Your task to perform on an android device: delete the emails in spam in the gmail app Image 0: 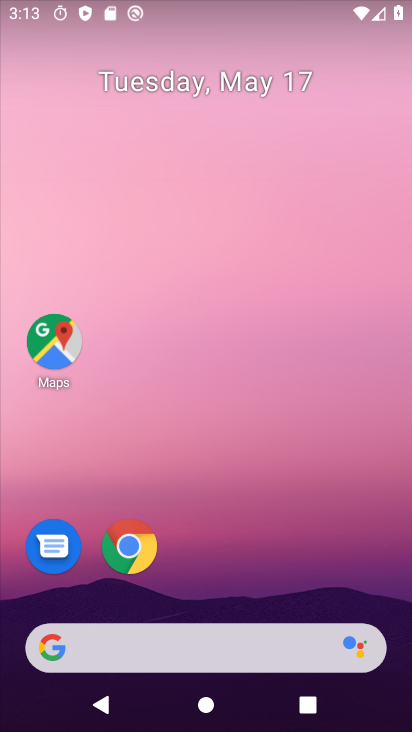
Step 0: drag from (285, 647) to (300, 84)
Your task to perform on an android device: delete the emails in spam in the gmail app Image 1: 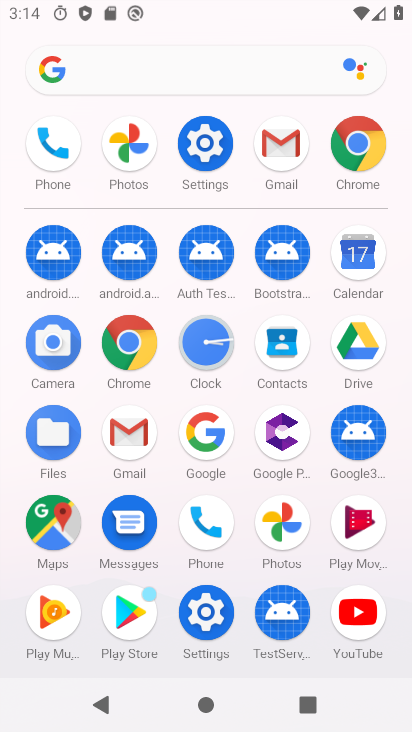
Step 1: drag from (280, 572) to (328, 303)
Your task to perform on an android device: delete the emails in spam in the gmail app Image 2: 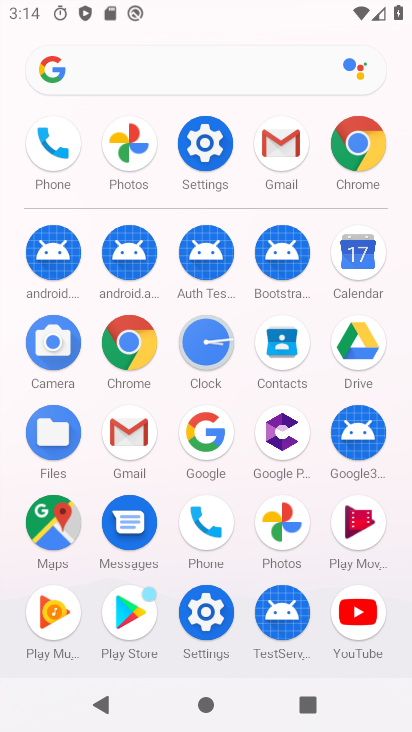
Step 2: click (135, 442)
Your task to perform on an android device: delete the emails in spam in the gmail app Image 3: 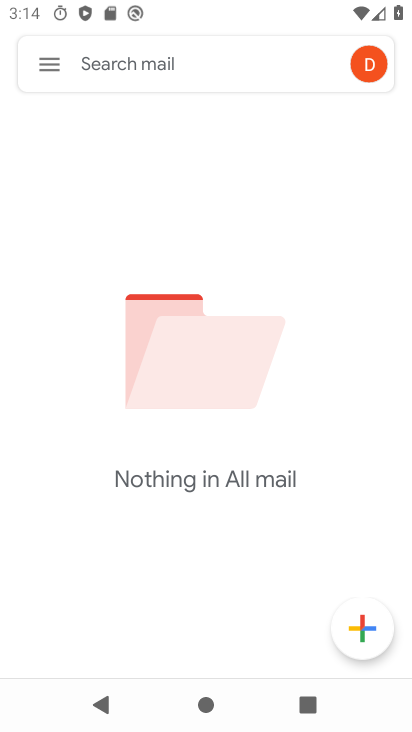
Step 3: click (64, 59)
Your task to perform on an android device: delete the emails in spam in the gmail app Image 4: 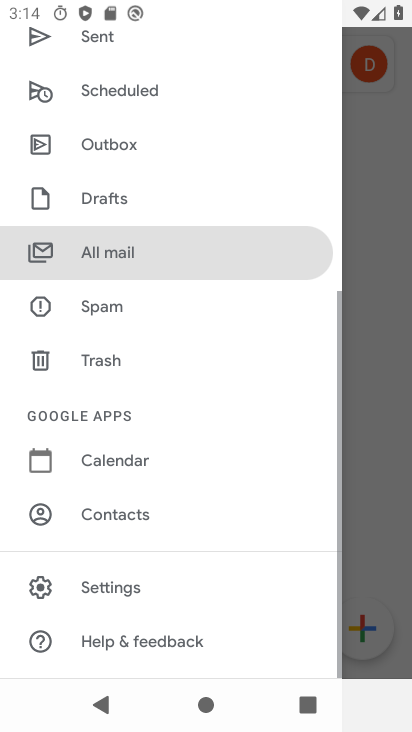
Step 4: click (135, 262)
Your task to perform on an android device: delete the emails in spam in the gmail app Image 5: 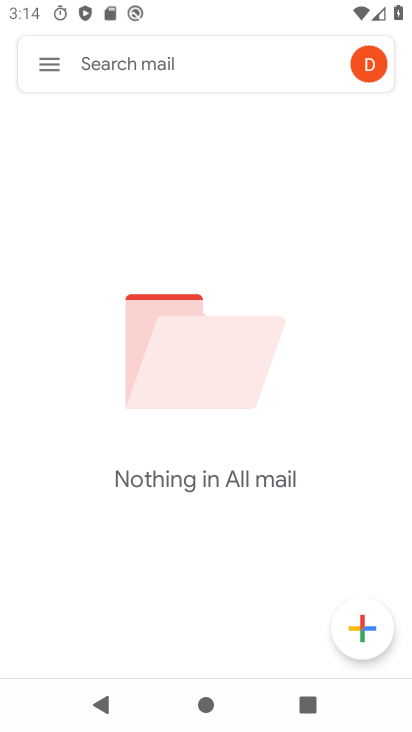
Step 5: task complete